Your task to perform on an android device: What's the weather? Image 0: 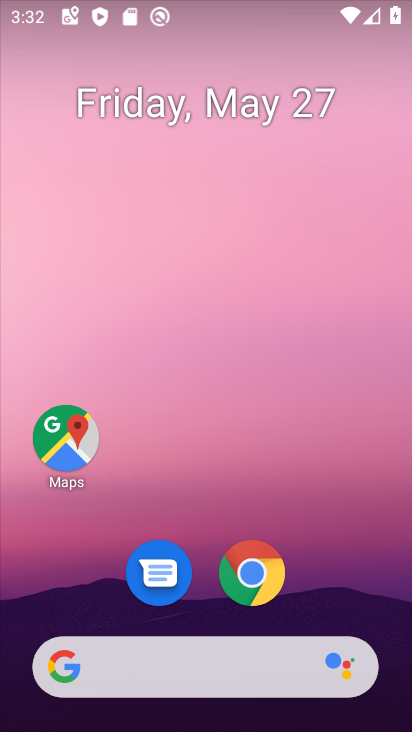
Step 0: click (175, 658)
Your task to perform on an android device: What's the weather? Image 1: 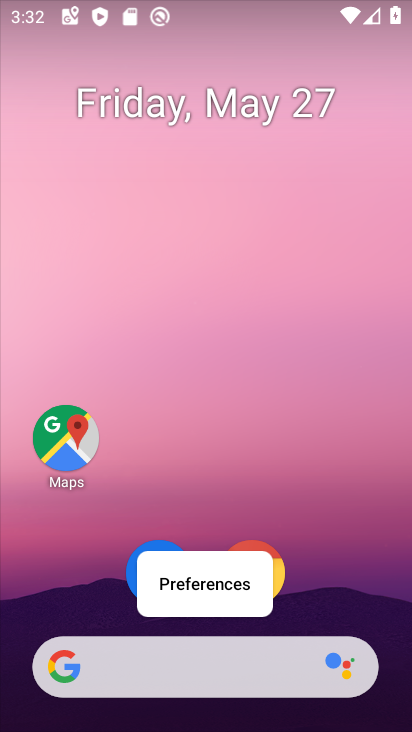
Step 1: click (155, 679)
Your task to perform on an android device: What's the weather? Image 2: 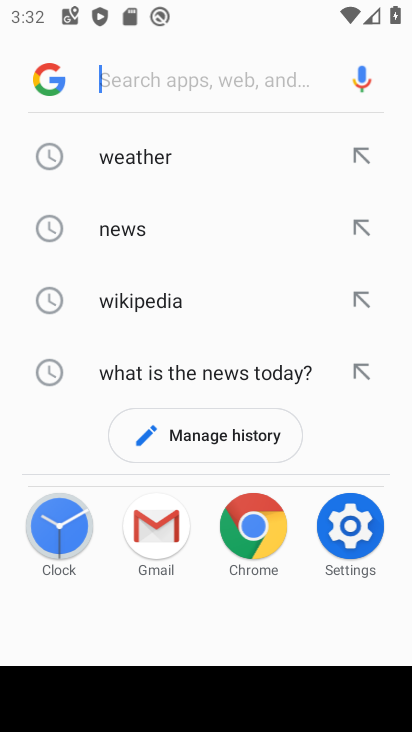
Step 2: click (107, 160)
Your task to perform on an android device: What's the weather? Image 3: 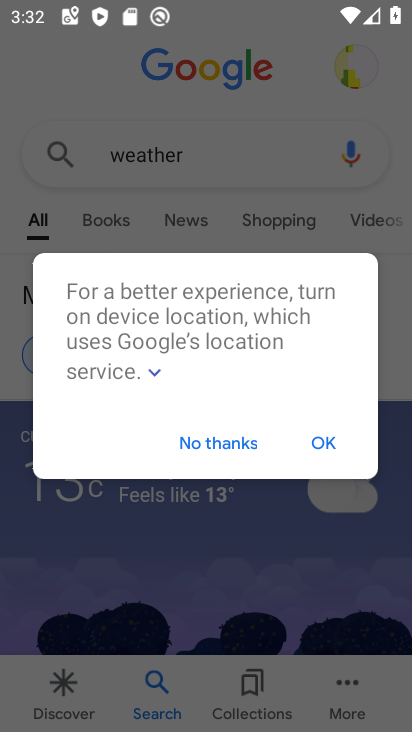
Step 3: click (316, 440)
Your task to perform on an android device: What's the weather? Image 4: 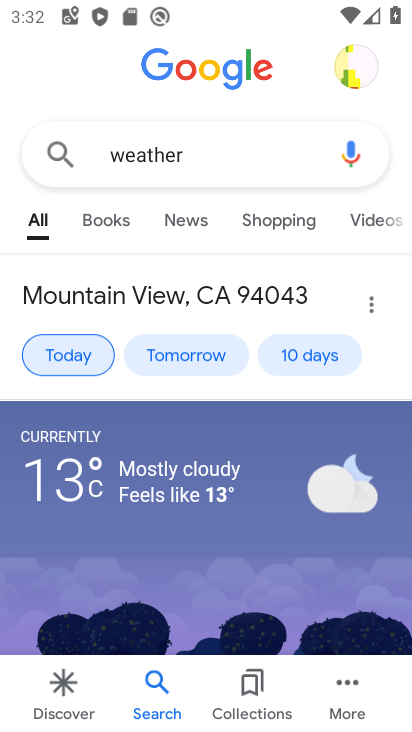
Step 4: click (91, 338)
Your task to perform on an android device: What's the weather? Image 5: 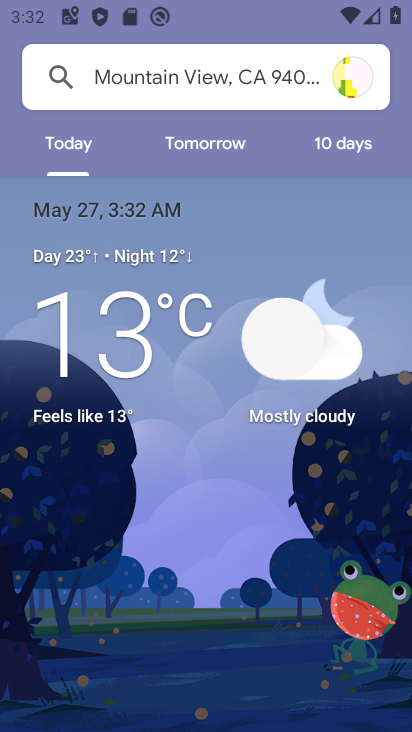
Step 5: task complete